Your task to perform on an android device: Open the camera Image 0: 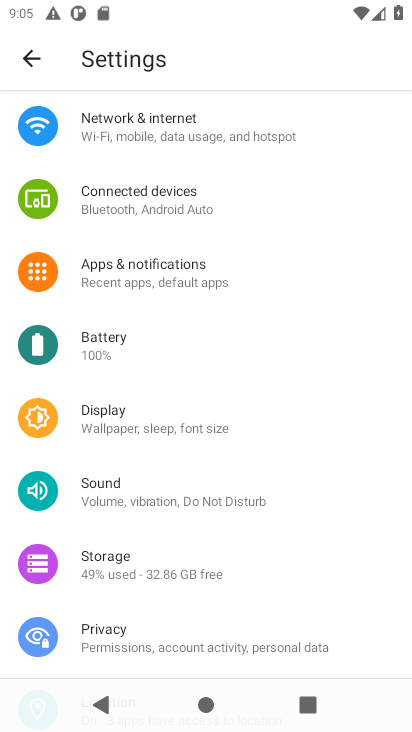
Step 0: press home button
Your task to perform on an android device: Open the camera Image 1: 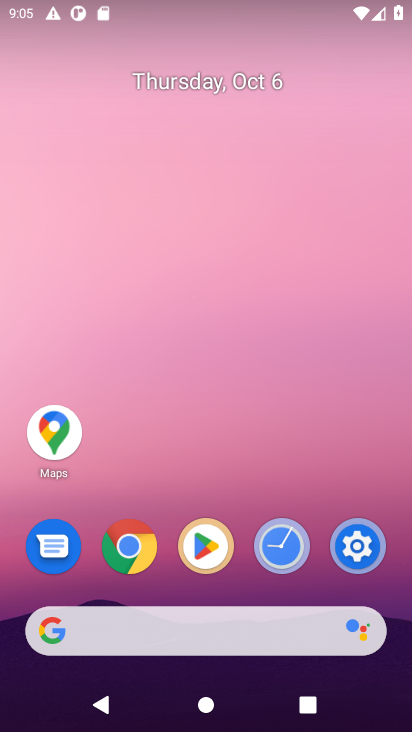
Step 1: drag from (164, 608) to (164, 283)
Your task to perform on an android device: Open the camera Image 2: 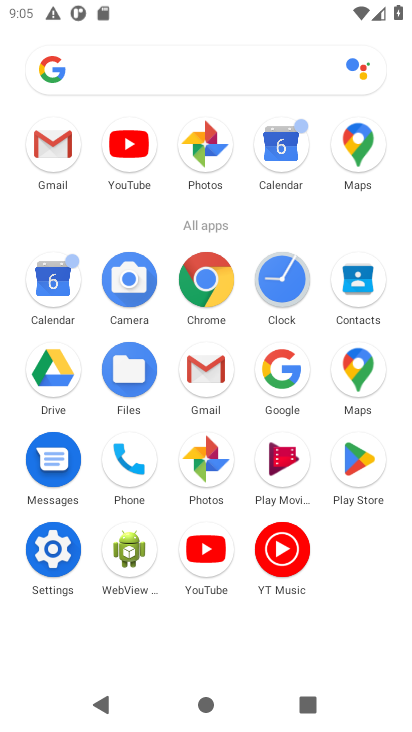
Step 2: click (127, 287)
Your task to perform on an android device: Open the camera Image 3: 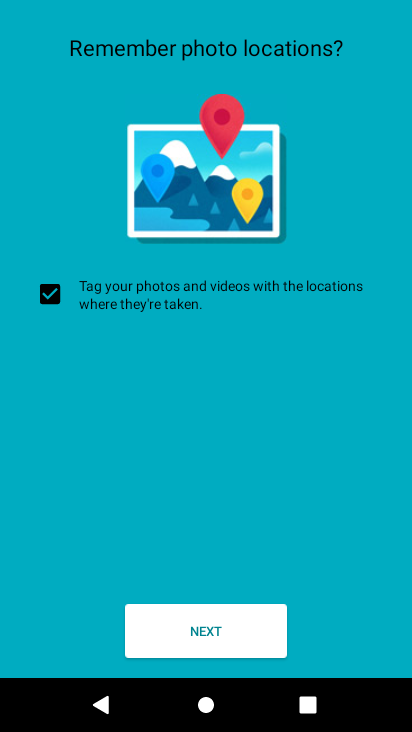
Step 3: click (228, 631)
Your task to perform on an android device: Open the camera Image 4: 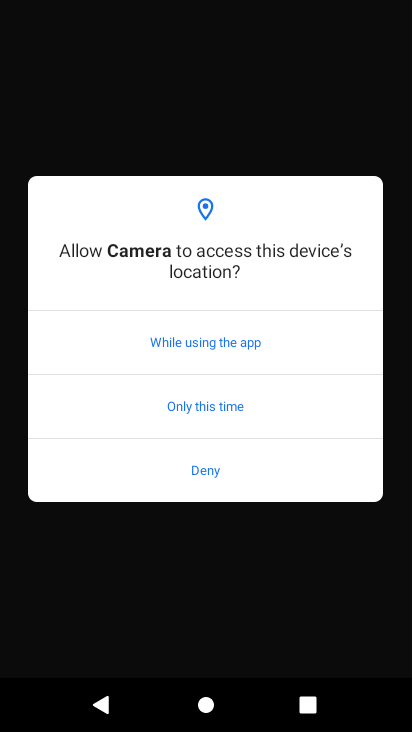
Step 4: click (223, 406)
Your task to perform on an android device: Open the camera Image 5: 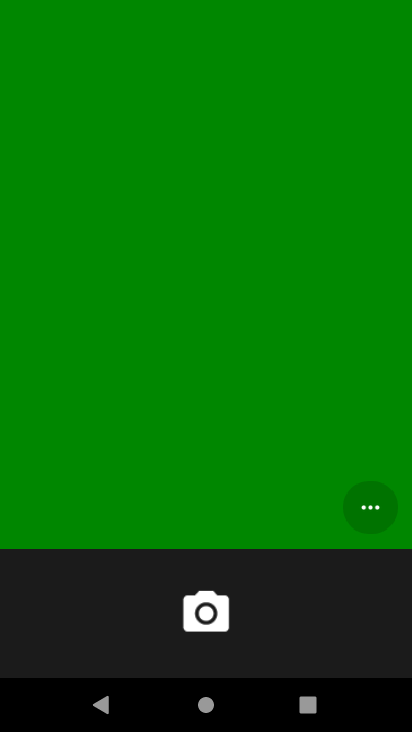
Step 5: task complete